Your task to perform on an android device: snooze an email in the gmail app Image 0: 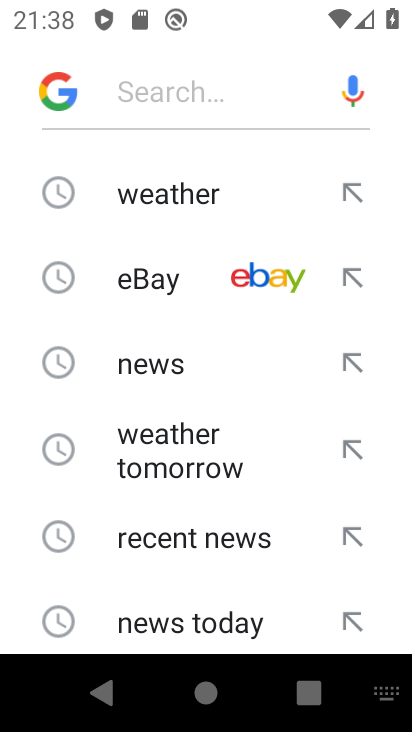
Step 0: press home button
Your task to perform on an android device: snooze an email in the gmail app Image 1: 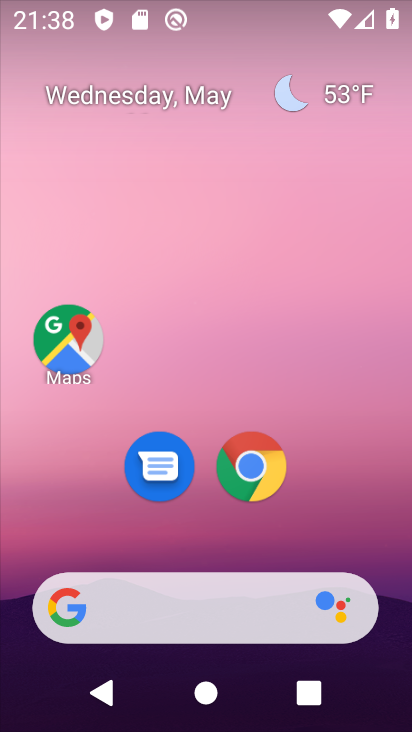
Step 1: drag from (197, 552) to (192, 111)
Your task to perform on an android device: snooze an email in the gmail app Image 2: 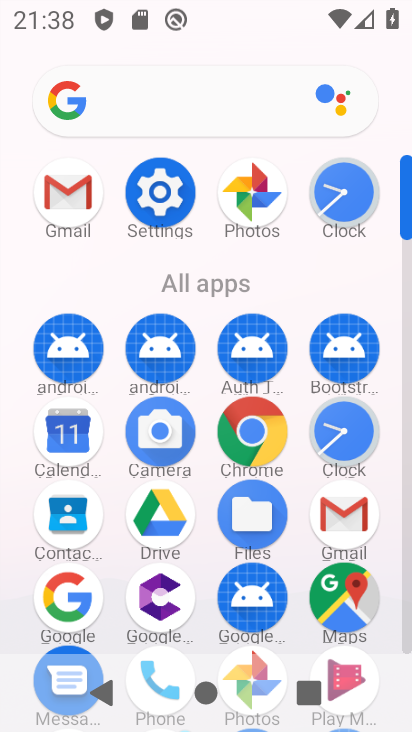
Step 2: click (349, 495)
Your task to perform on an android device: snooze an email in the gmail app Image 3: 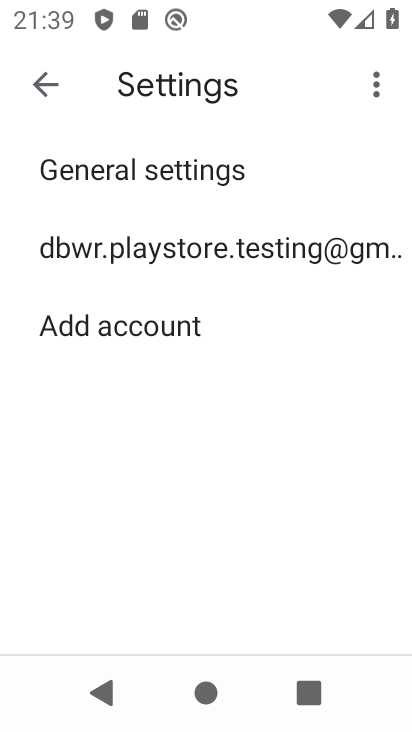
Step 3: click (31, 83)
Your task to perform on an android device: snooze an email in the gmail app Image 4: 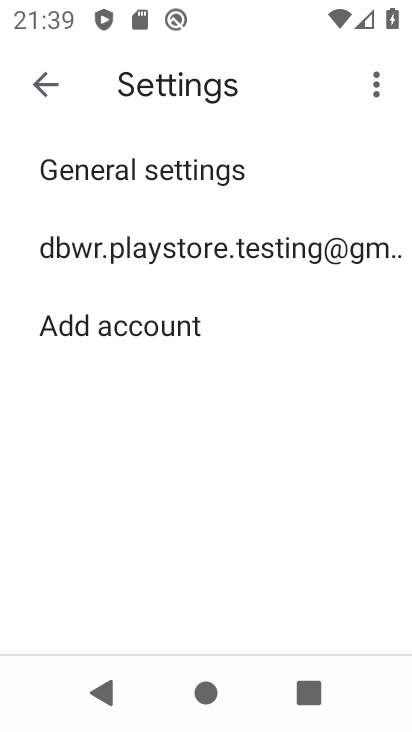
Step 4: click (31, 83)
Your task to perform on an android device: snooze an email in the gmail app Image 5: 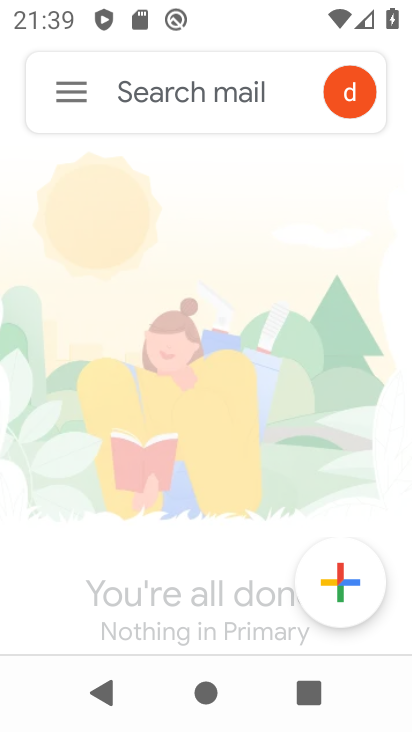
Step 5: task complete